Your task to perform on an android device: turn off translation in the chrome app Image 0: 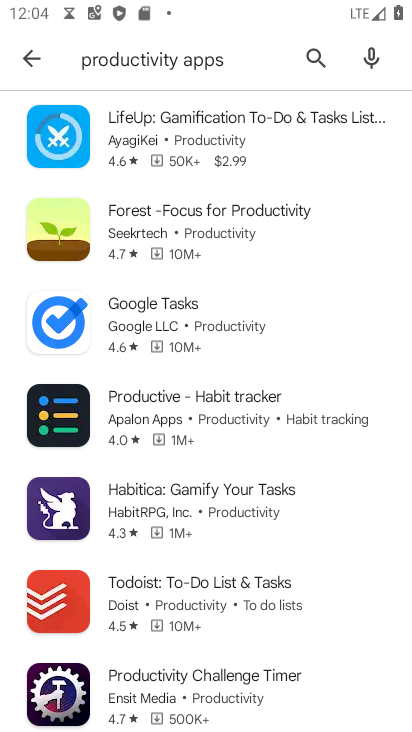
Step 0: press home button
Your task to perform on an android device: turn off translation in the chrome app Image 1: 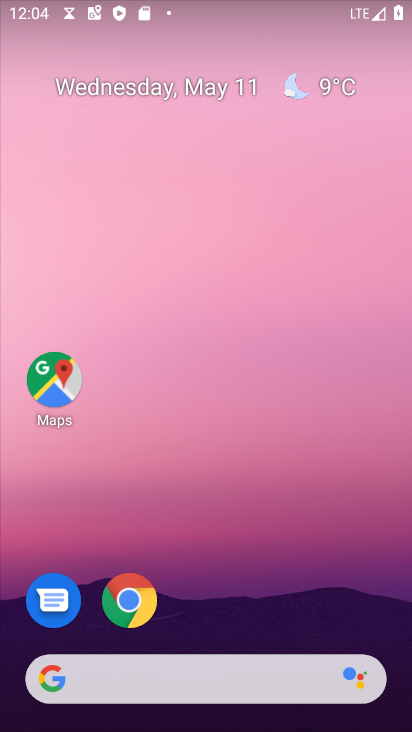
Step 1: click (112, 605)
Your task to perform on an android device: turn off translation in the chrome app Image 2: 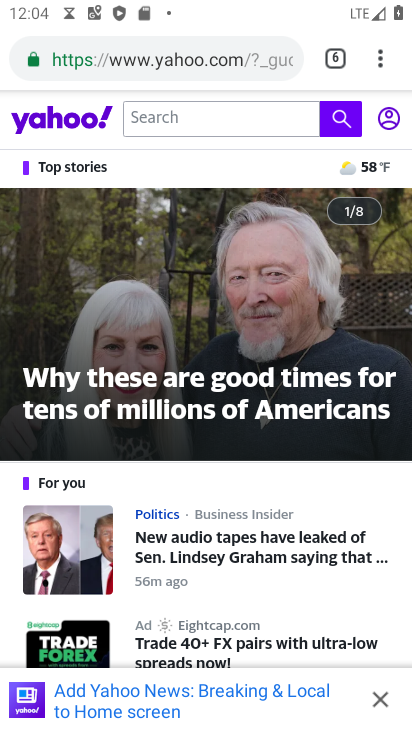
Step 2: click (380, 59)
Your task to perform on an android device: turn off translation in the chrome app Image 3: 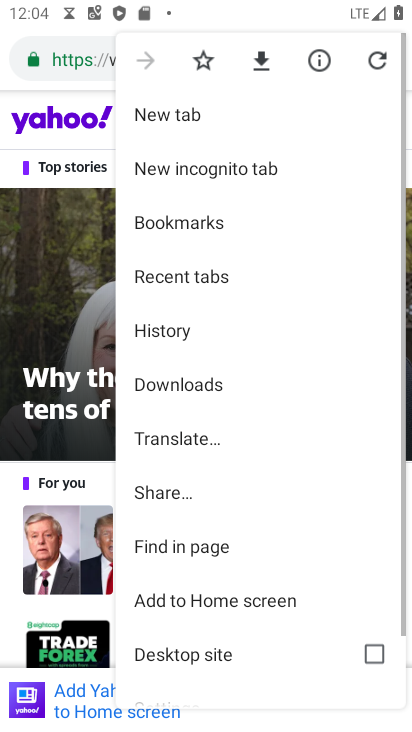
Step 3: drag from (249, 617) to (261, 247)
Your task to perform on an android device: turn off translation in the chrome app Image 4: 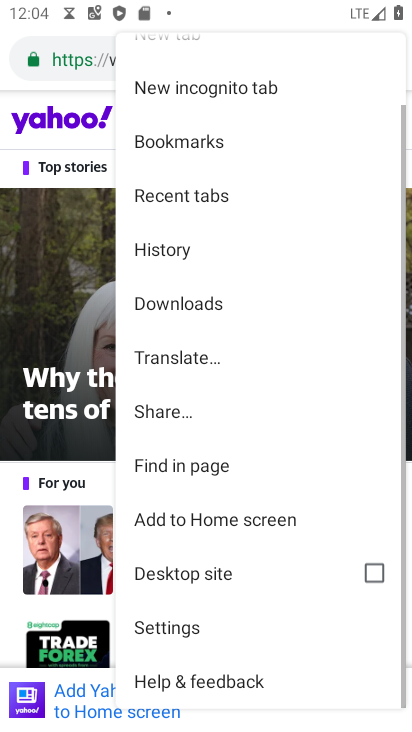
Step 4: click (182, 616)
Your task to perform on an android device: turn off translation in the chrome app Image 5: 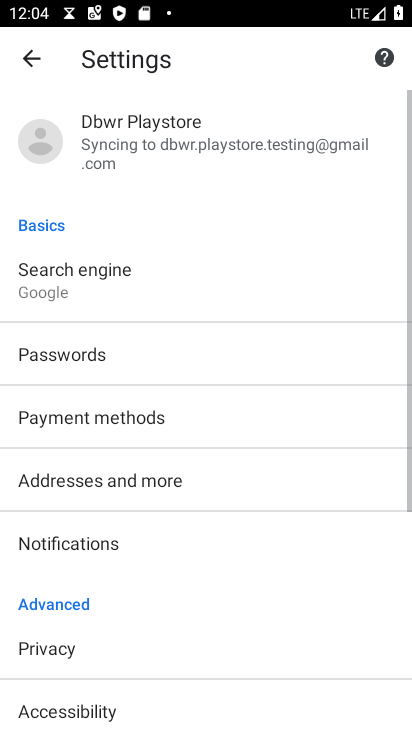
Step 5: drag from (167, 628) to (149, 257)
Your task to perform on an android device: turn off translation in the chrome app Image 6: 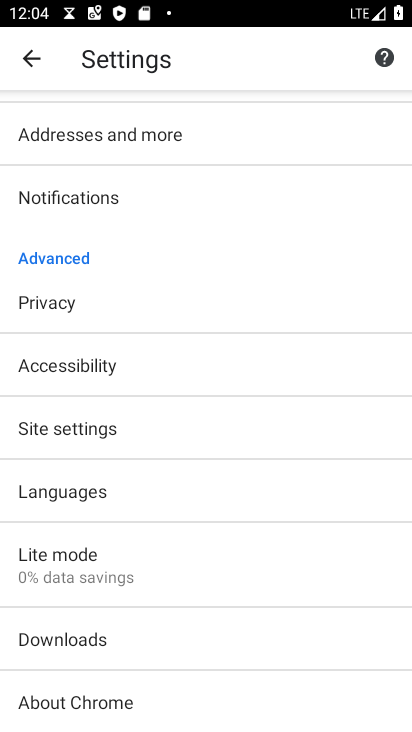
Step 6: click (99, 499)
Your task to perform on an android device: turn off translation in the chrome app Image 7: 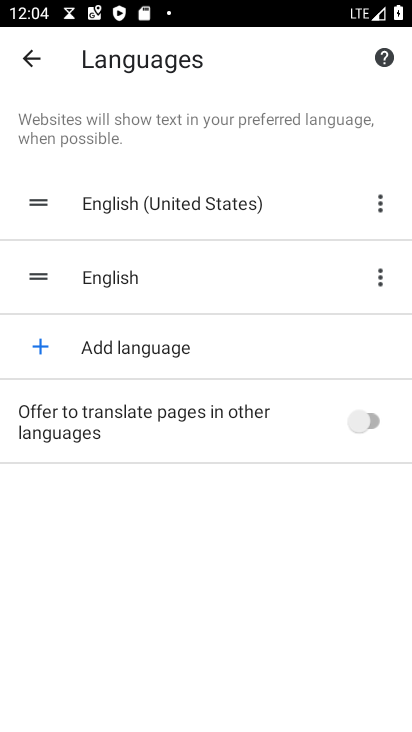
Step 7: task complete